Your task to perform on an android device: turn notification dots on Image 0: 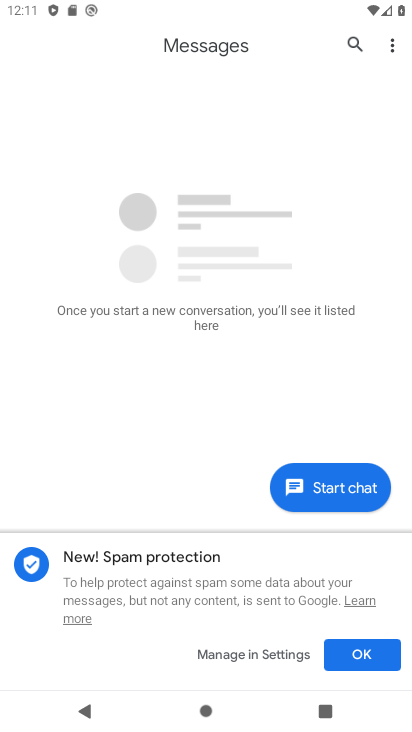
Step 0: press home button
Your task to perform on an android device: turn notification dots on Image 1: 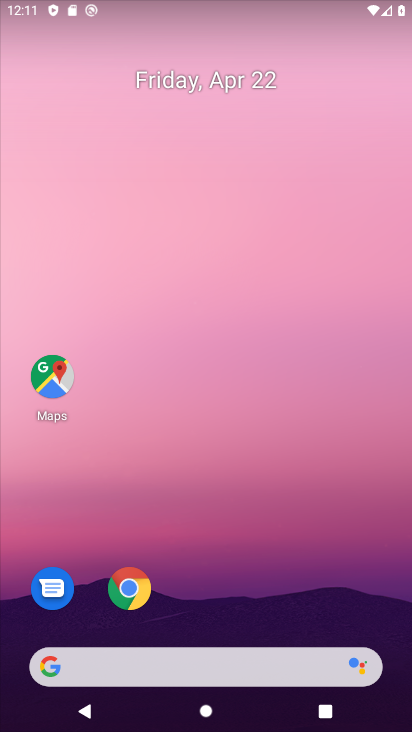
Step 1: drag from (312, 596) to (278, 92)
Your task to perform on an android device: turn notification dots on Image 2: 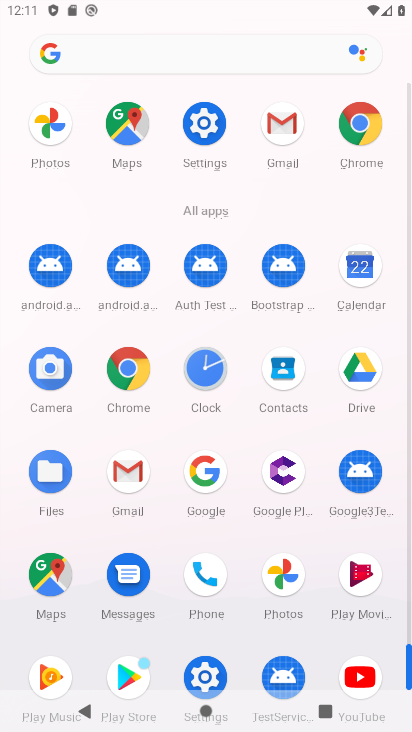
Step 2: click (200, 114)
Your task to perform on an android device: turn notification dots on Image 3: 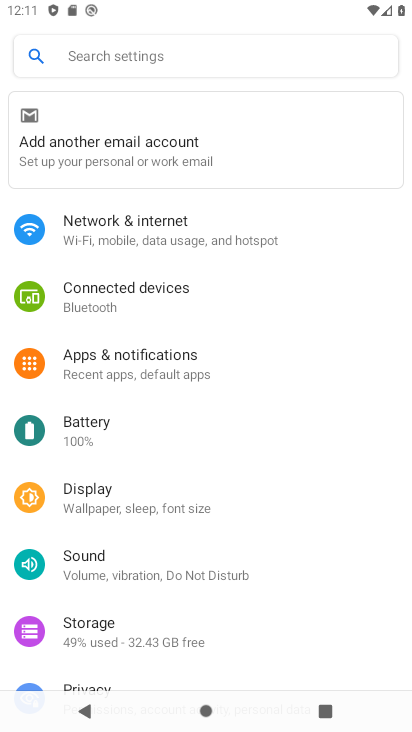
Step 3: click (133, 359)
Your task to perform on an android device: turn notification dots on Image 4: 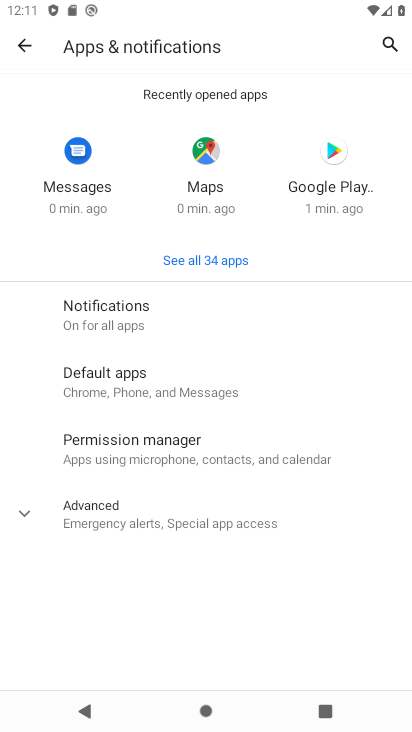
Step 4: click (112, 302)
Your task to perform on an android device: turn notification dots on Image 5: 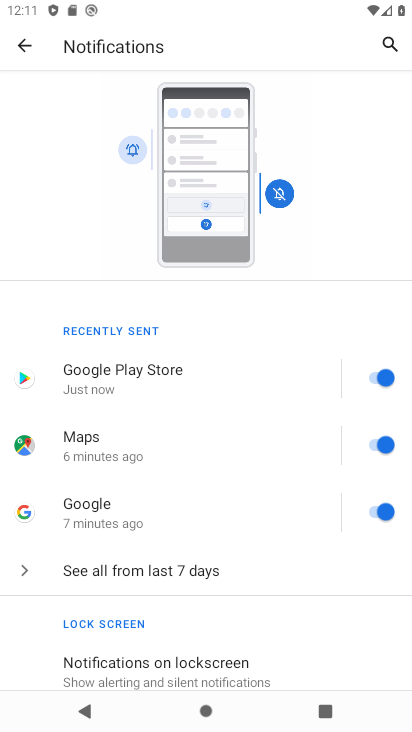
Step 5: drag from (272, 582) to (273, 282)
Your task to perform on an android device: turn notification dots on Image 6: 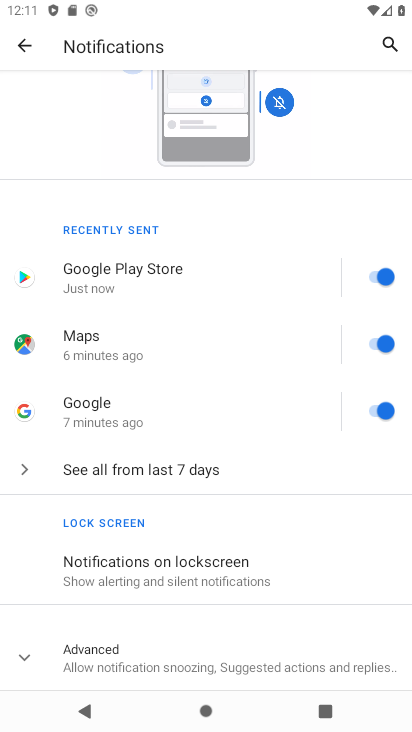
Step 6: click (159, 665)
Your task to perform on an android device: turn notification dots on Image 7: 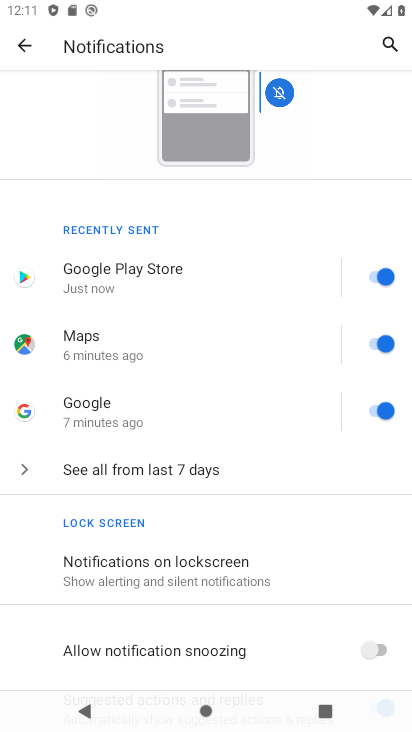
Step 7: task complete